Your task to perform on an android device: turn off javascript in the chrome app Image 0: 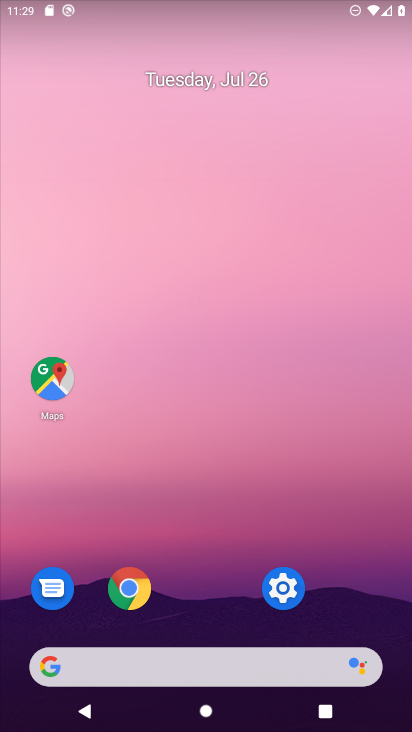
Step 0: drag from (252, 675) to (258, 267)
Your task to perform on an android device: turn off javascript in the chrome app Image 1: 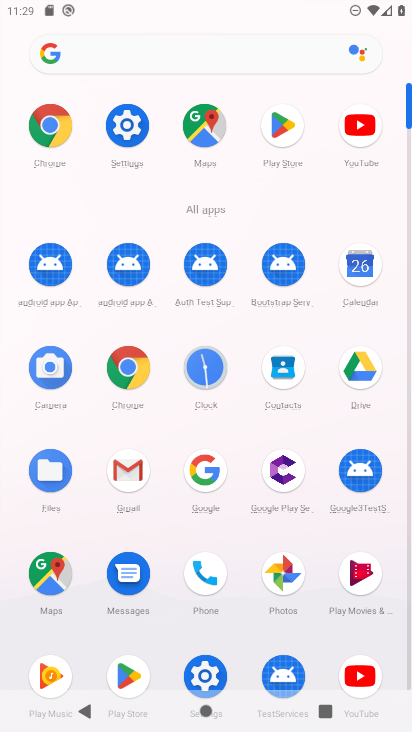
Step 1: click (49, 134)
Your task to perform on an android device: turn off javascript in the chrome app Image 2: 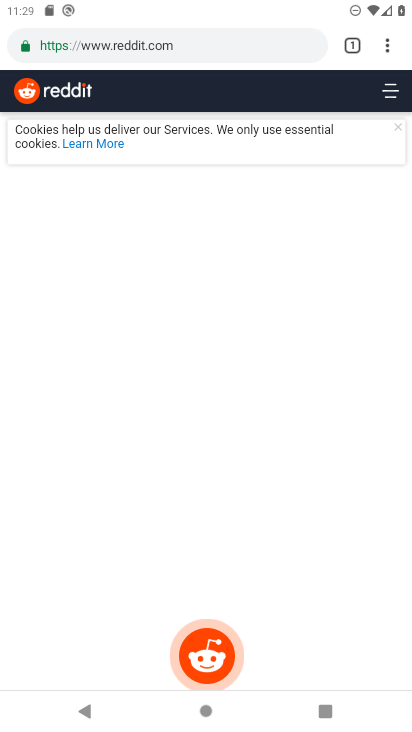
Step 2: click (387, 42)
Your task to perform on an android device: turn off javascript in the chrome app Image 3: 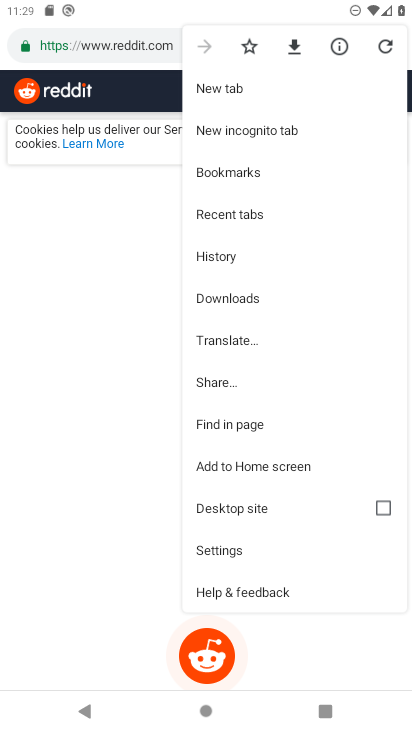
Step 3: click (224, 546)
Your task to perform on an android device: turn off javascript in the chrome app Image 4: 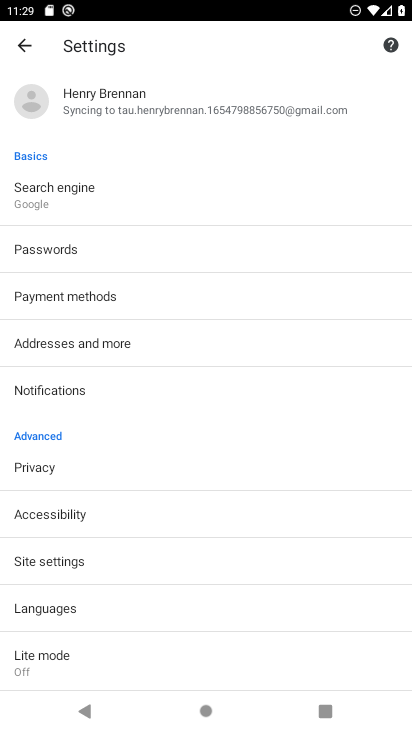
Step 4: click (48, 559)
Your task to perform on an android device: turn off javascript in the chrome app Image 5: 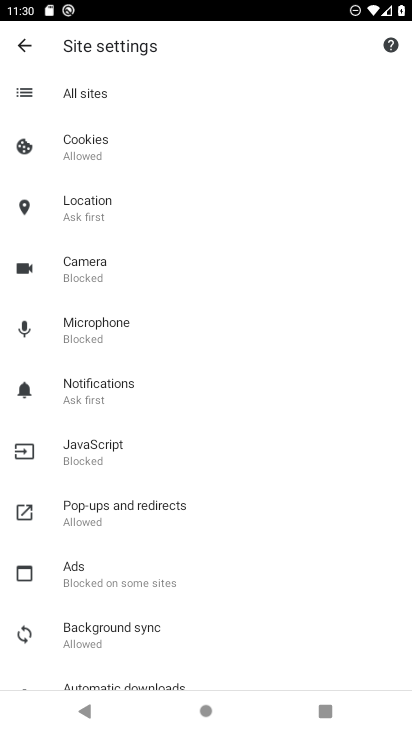
Step 5: click (84, 451)
Your task to perform on an android device: turn off javascript in the chrome app Image 6: 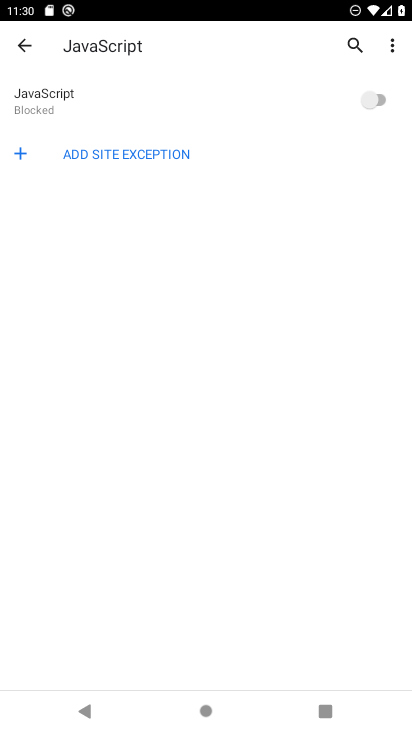
Step 6: click (361, 106)
Your task to perform on an android device: turn off javascript in the chrome app Image 7: 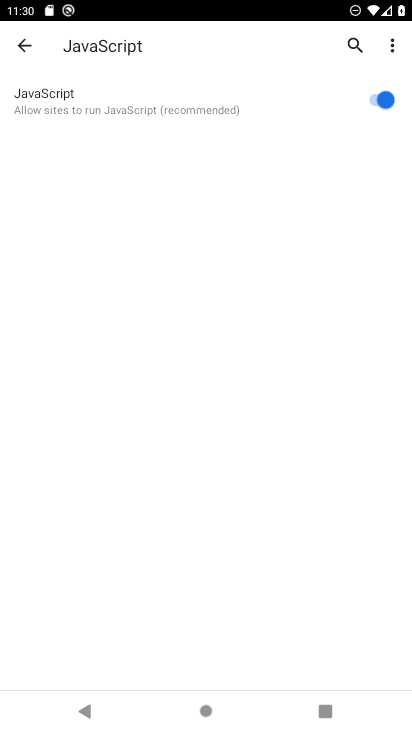
Step 7: click (361, 105)
Your task to perform on an android device: turn off javascript in the chrome app Image 8: 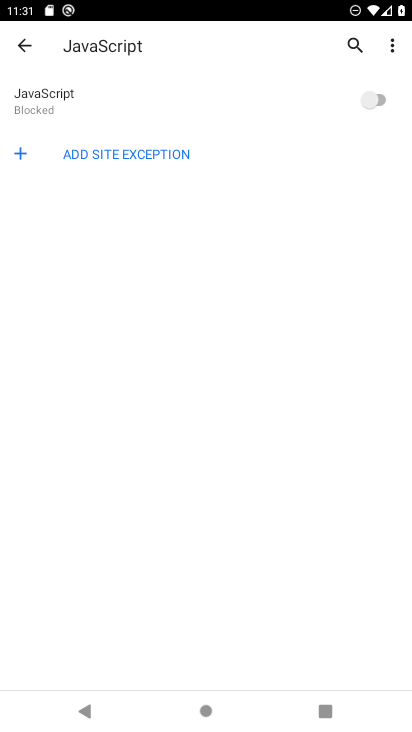
Step 8: task complete